Your task to perform on an android device: Show me recent news Image 0: 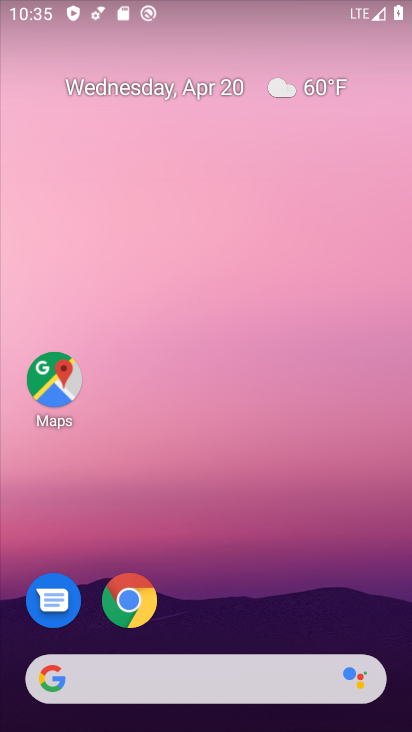
Step 0: drag from (298, 580) to (271, 106)
Your task to perform on an android device: Show me recent news Image 1: 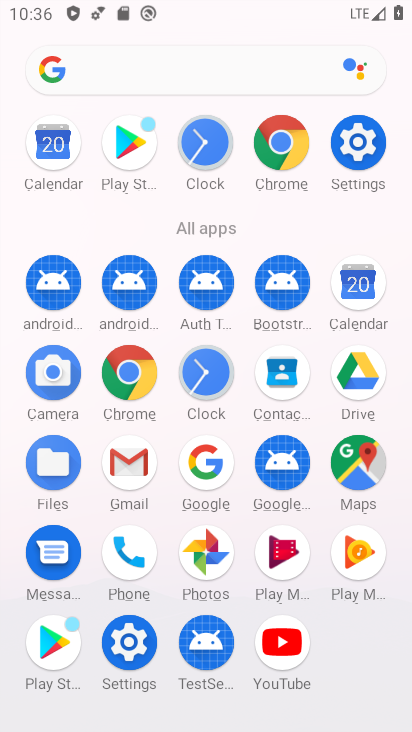
Step 1: click (121, 381)
Your task to perform on an android device: Show me recent news Image 2: 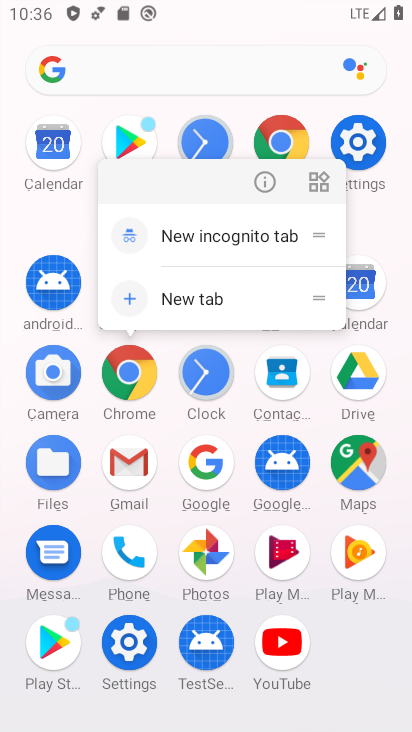
Step 2: click (136, 373)
Your task to perform on an android device: Show me recent news Image 3: 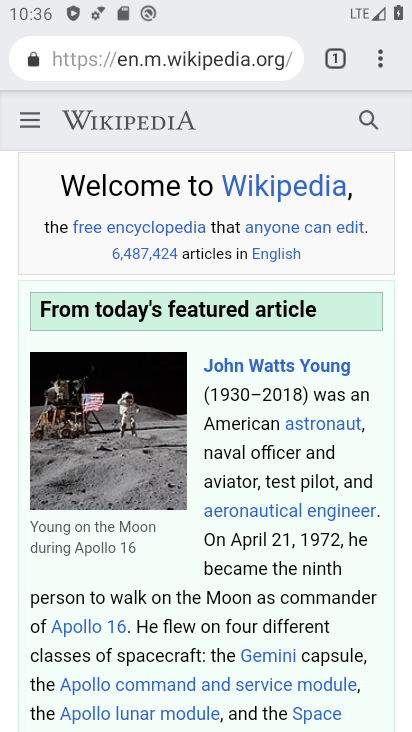
Step 3: click (255, 66)
Your task to perform on an android device: Show me recent news Image 4: 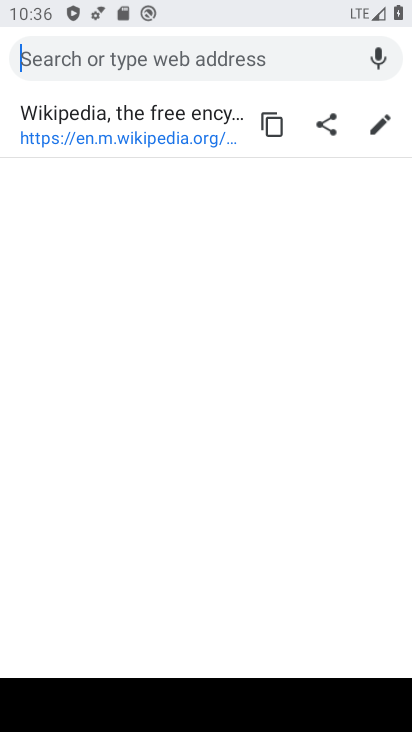
Step 4: type "news"
Your task to perform on an android device: Show me recent news Image 5: 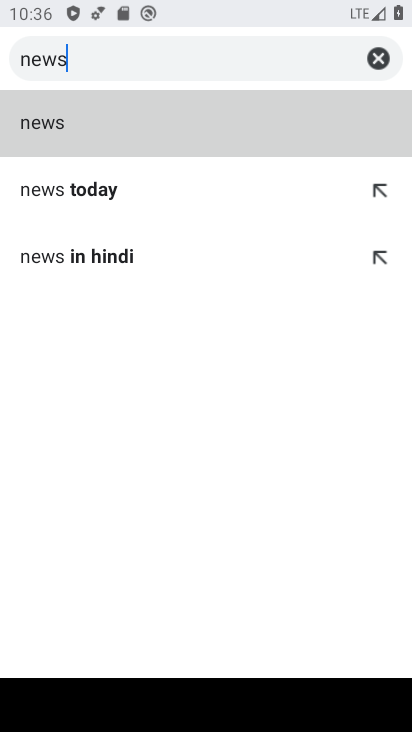
Step 5: drag from (1, 131) to (41, 131)
Your task to perform on an android device: Show me recent news Image 6: 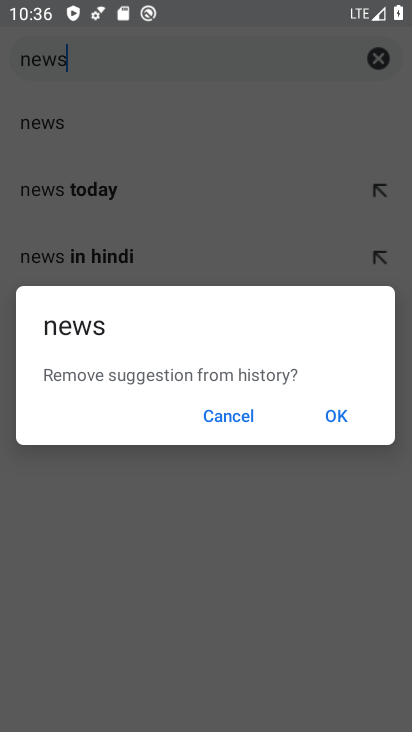
Step 6: click (222, 414)
Your task to perform on an android device: Show me recent news Image 7: 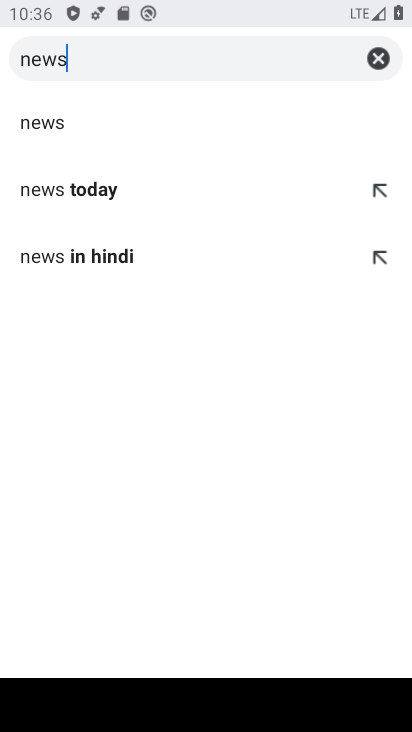
Step 7: press enter
Your task to perform on an android device: Show me recent news Image 8: 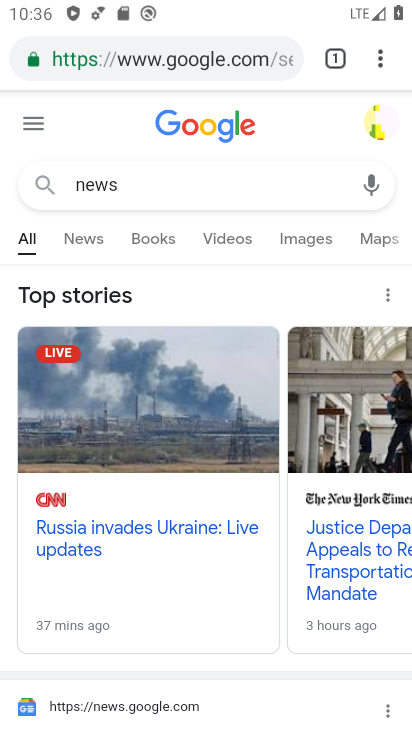
Step 8: drag from (265, 597) to (226, 115)
Your task to perform on an android device: Show me recent news Image 9: 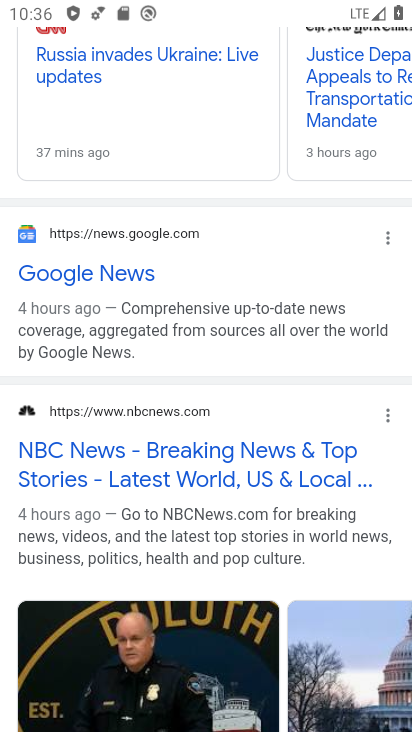
Step 9: click (107, 269)
Your task to perform on an android device: Show me recent news Image 10: 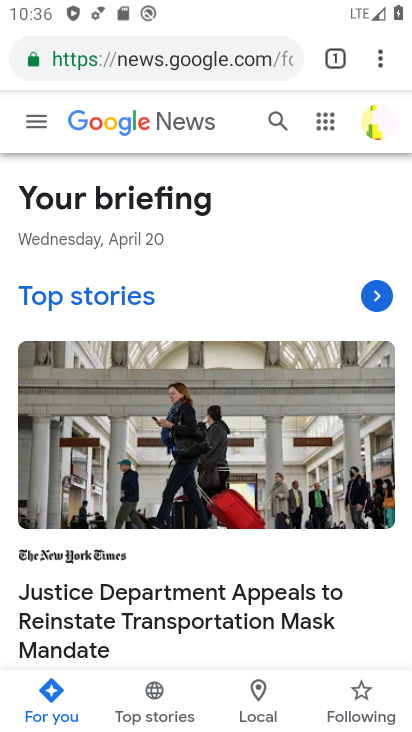
Step 10: task complete